Your task to perform on an android device: turn on showing notifications on the lock screen Image 0: 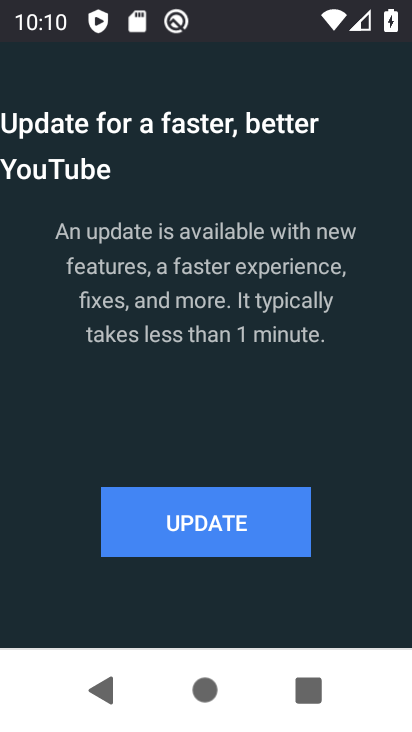
Step 0: press home button
Your task to perform on an android device: turn on showing notifications on the lock screen Image 1: 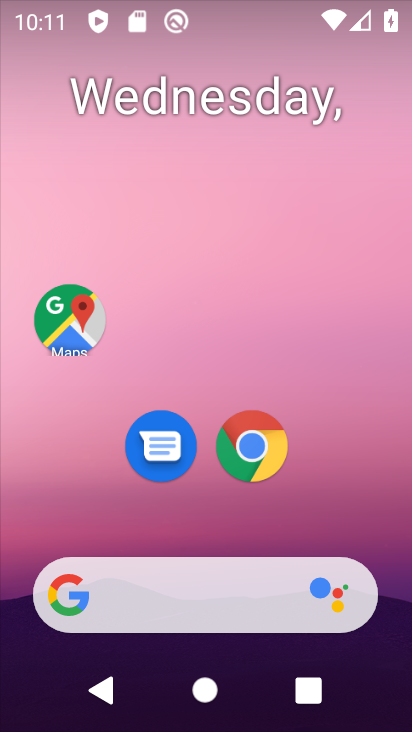
Step 1: drag from (287, 558) to (303, 256)
Your task to perform on an android device: turn on showing notifications on the lock screen Image 2: 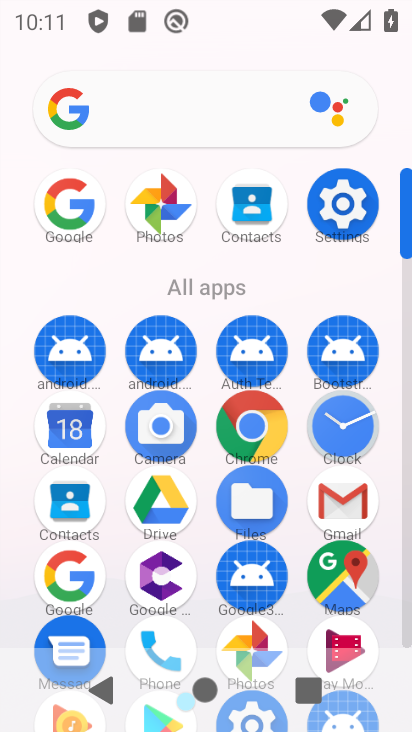
Step 2: click (368, 215)
Your task to perform on an android device: turn on showing notifications on the lock screen Image 3: 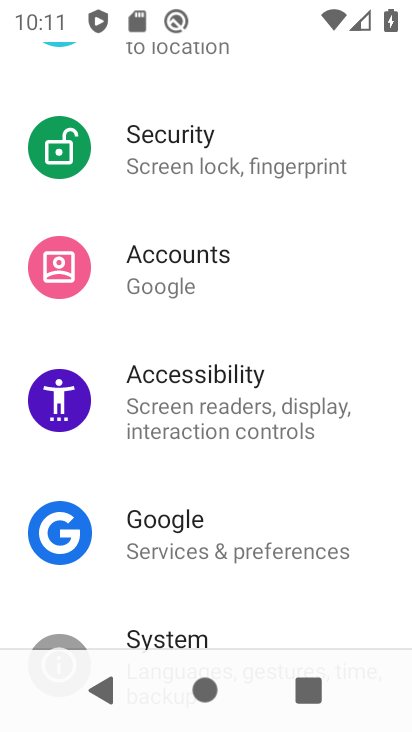
Step 3: drag from (324, 255) to (322, 515)
Your task to perform on an android device: turn on showing notifications on the lock screen Image 4: 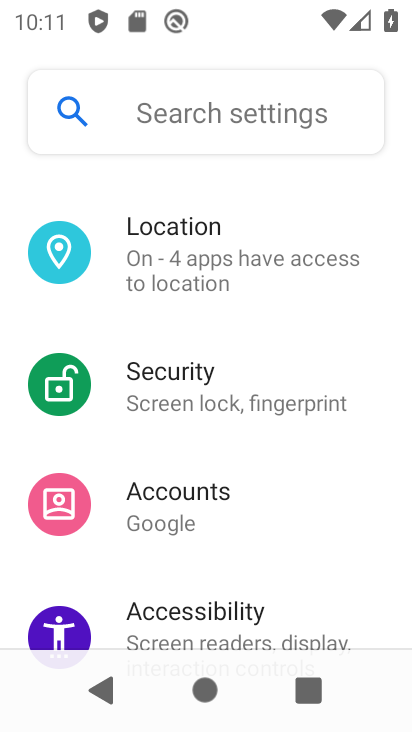
Step 4: drag from (292, 271) to (260, 568)
Your task to perform on an android device: turn on showing notifications on the lock screen Image 5: 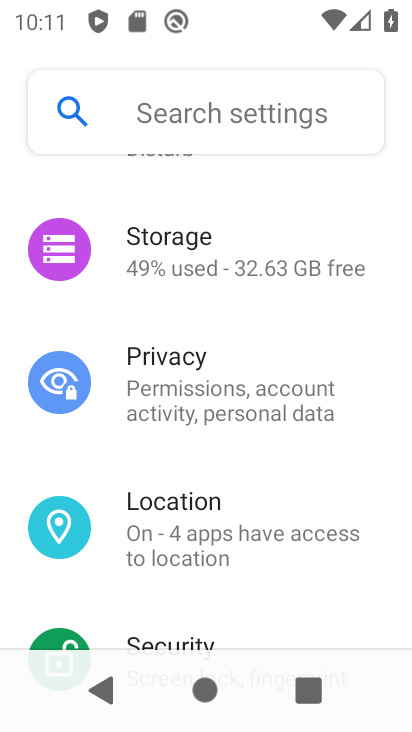
Step 5: drag from (259, 254) to (245, 609)
Your task to perform on an android device: turn on showing notifications on the lock screen Image 6: 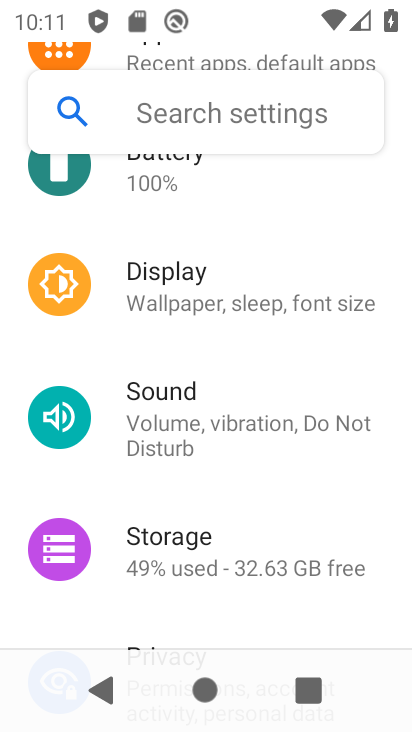
Step 6: drag from (230, 283) to (222, 620)
Your task to perform on an android device: turn on showing notifications on the lock screen Image 7: 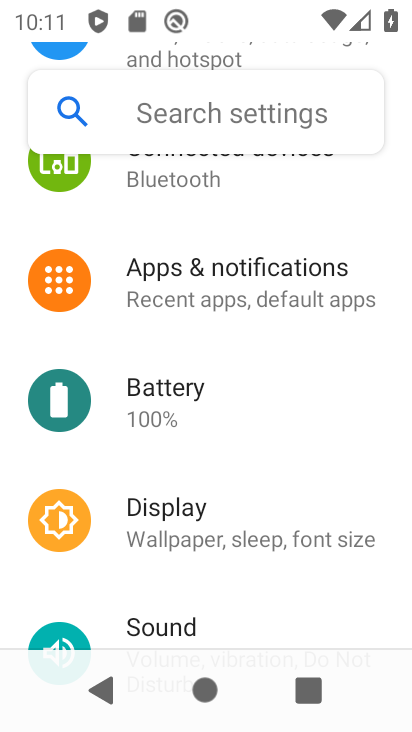
Step 7: drag from (208, 269) to (249, 611)
Your task to perform on an android device: turn on showing notifications on the lock screen Image 8: 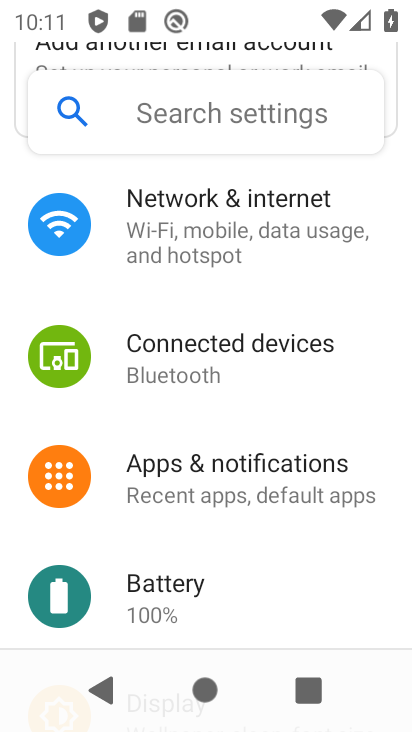
Step 8: click (294, 497)
Your task to perform on an android device: turn on showing notifications on the lock screen Image 9: 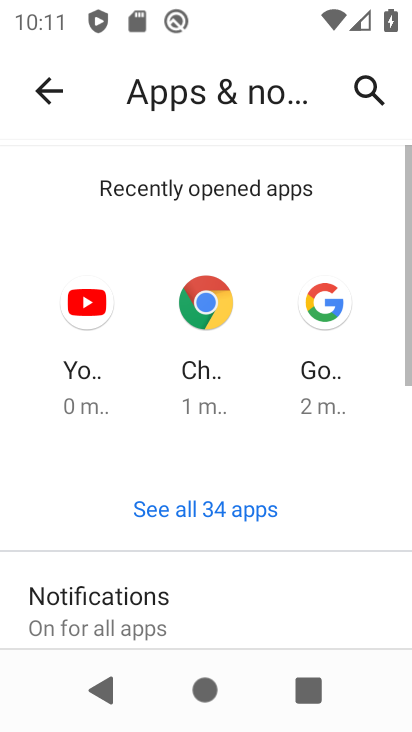
Step 9: drag from (263, 554) to (265, 236)
Your task to perform on an android device: turn on showing notifications on the lock screen Image 10: 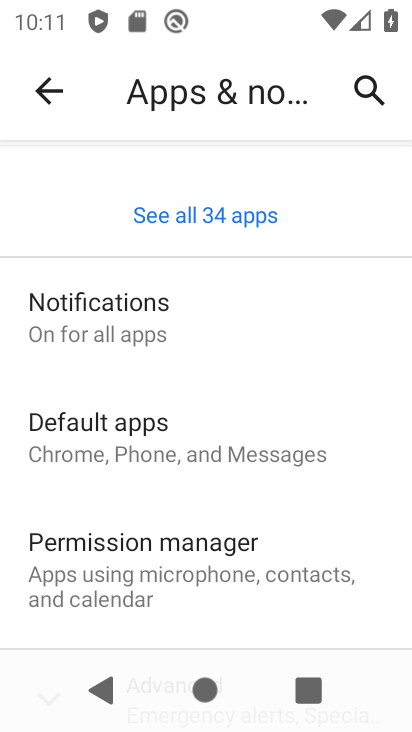
Step 10: drag from (245, 583) to (218, 326)
Your task to perform on an android device: turn on showing notifications on the lock screen Image 11: 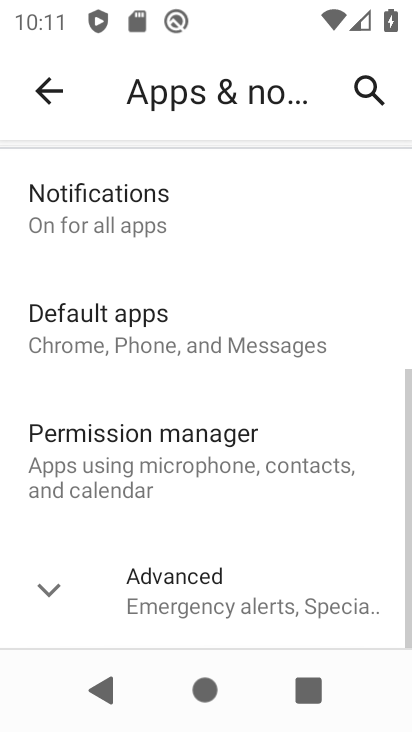
Step 11: click (174, 233)
Your task to perform on an android device: turn on showing notifications on the lock screen Image 12: 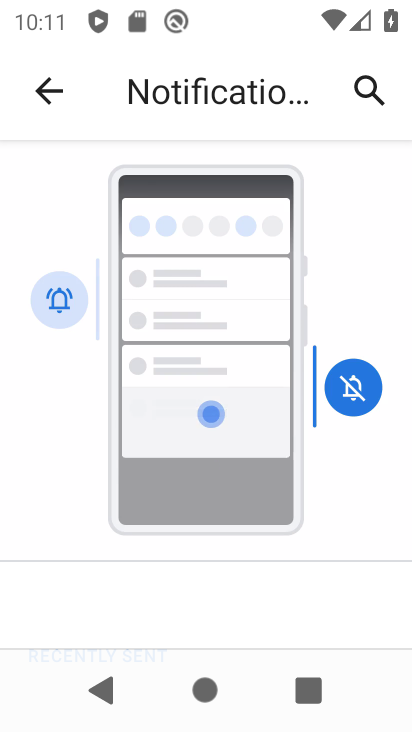
Step 12: drag from (315, 548) to (289, 232)
Your task to perform on an android device: turn on showing notifications on the lock screen Image 13: 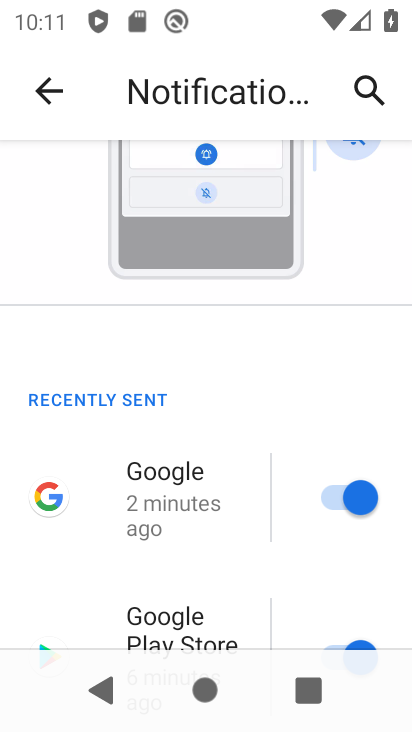
Step 13: drag from (298, 524) to (295, 234)
Your task to perform on an android device: turn on showing notifications on the lock screen Image 14: 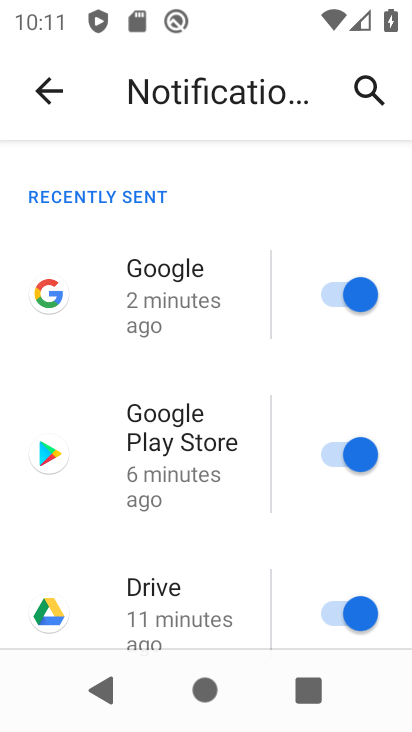
Step 14: drag from (272, 580) to (302, 182)
Your task to perform on an android device: turn on showing notifications on the lock screen Image 15: 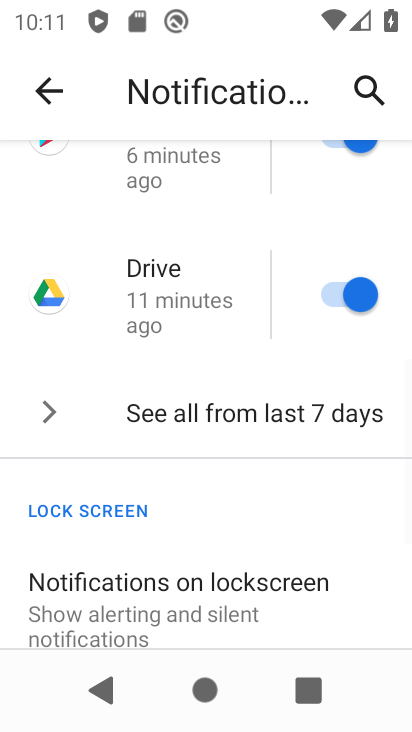
Step 15: click (230, 603)
Your task to perform on an android device: turn on showing notifications on the lock screen Image 16: 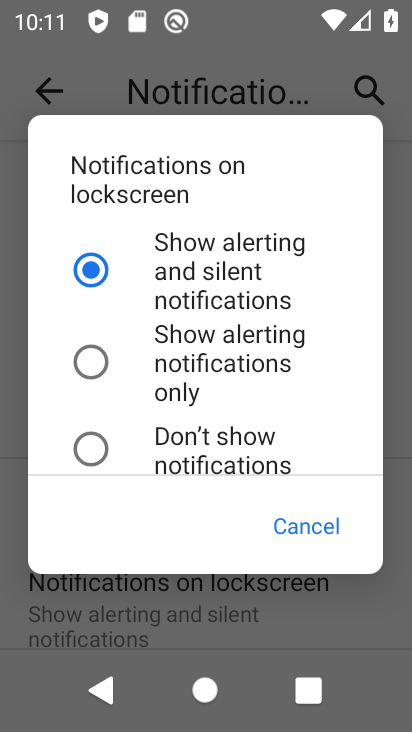
Step 16: task complete